Your task to perform on an android device: open app "Walmart Shopping & Grocery" (install if not already installed) and go to login screen Image 0: 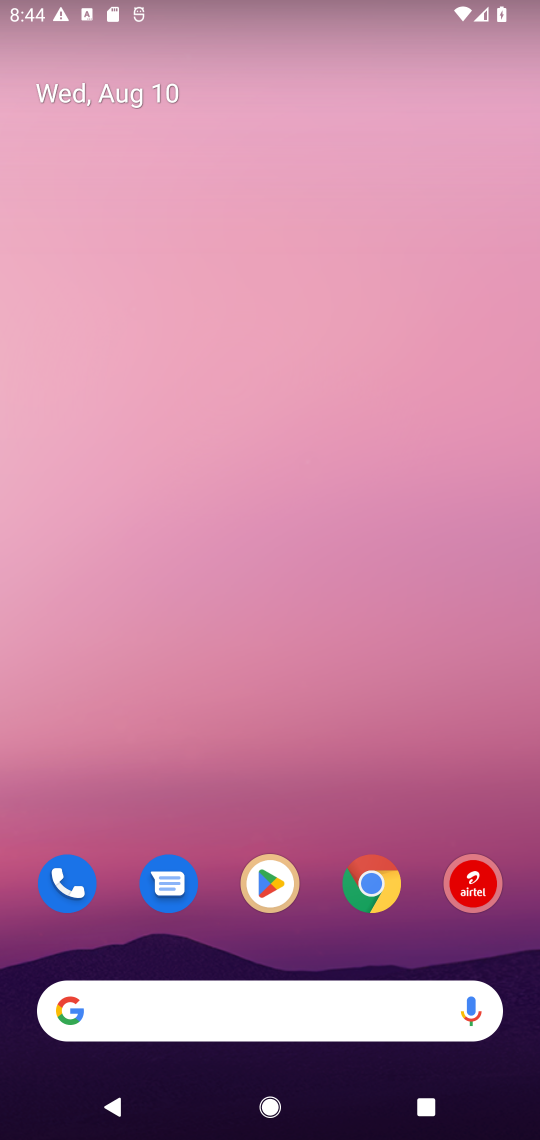
Step 0: drag from (314, 841) to (312, 92)
Your task to perform on an android device: open app "Walmart Shopping & Grocery" (install if not already installed) and go to login screen Image 1: 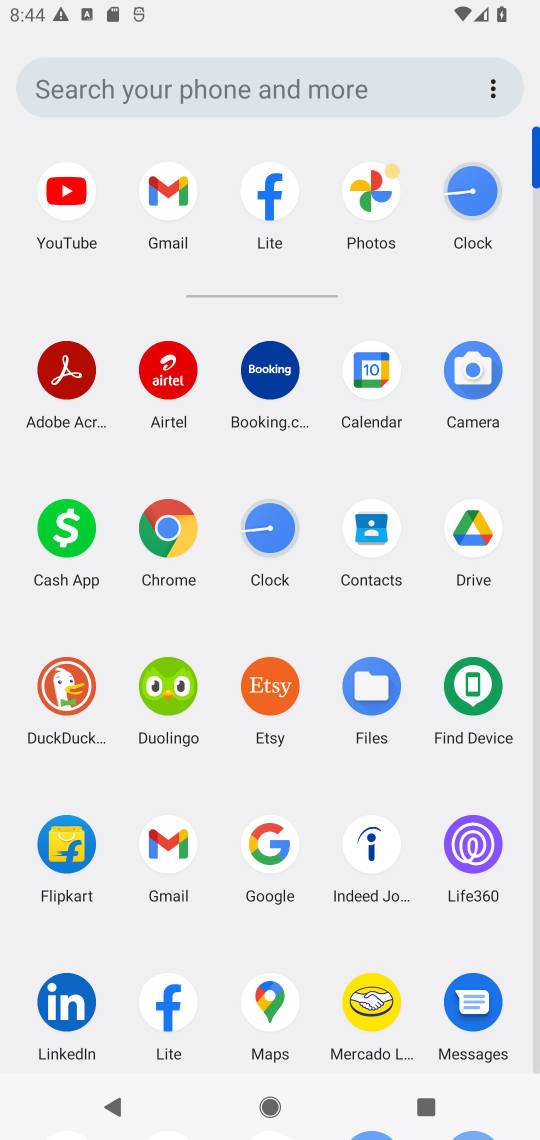
Step 1: drag from (208, 891) to (186, 417)
Your task to perform on an android device: open app "Walmart Shopping & Grocery" (install if not already installed) and go to login screen Image 2: 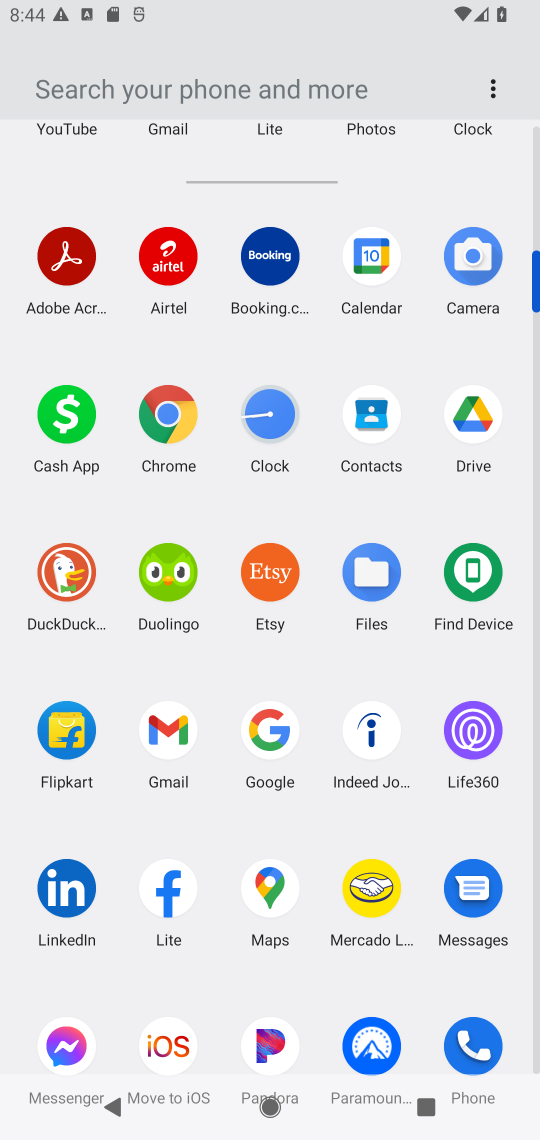
Step 2: drag from (224, 861) to (244, 467)
Your task to perform on an android device: open app "Walmart Shopping & Grocery" (install if not already installed) and go to login screen Image 3: 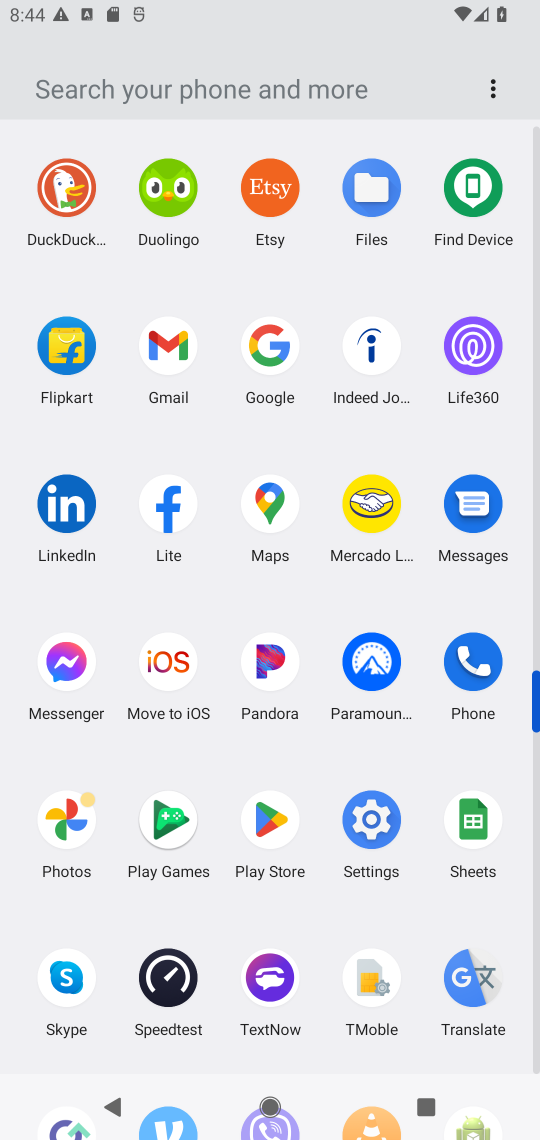
Step 3: click (262, 824)
Your task to perform on an android device: open app "Walmart Shopping & Grocery" (install if not already installed) and go to login screen Image 4: 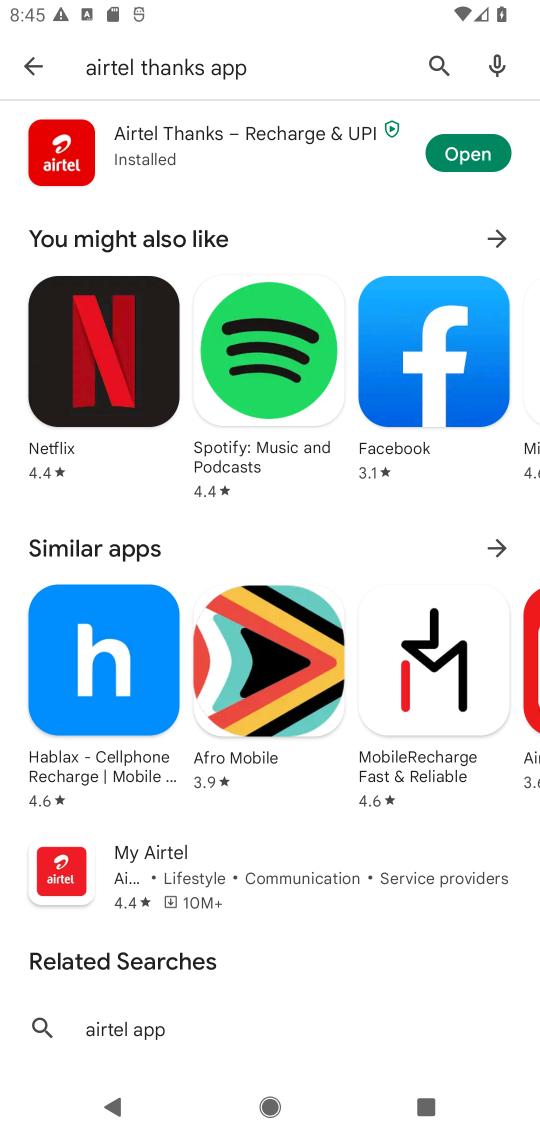
Step 4: click (434, 56)
Your task to perform on an android device: open app "Walmart Shopping & Grocery" (install if not already installed) and go to login screen Image 5: 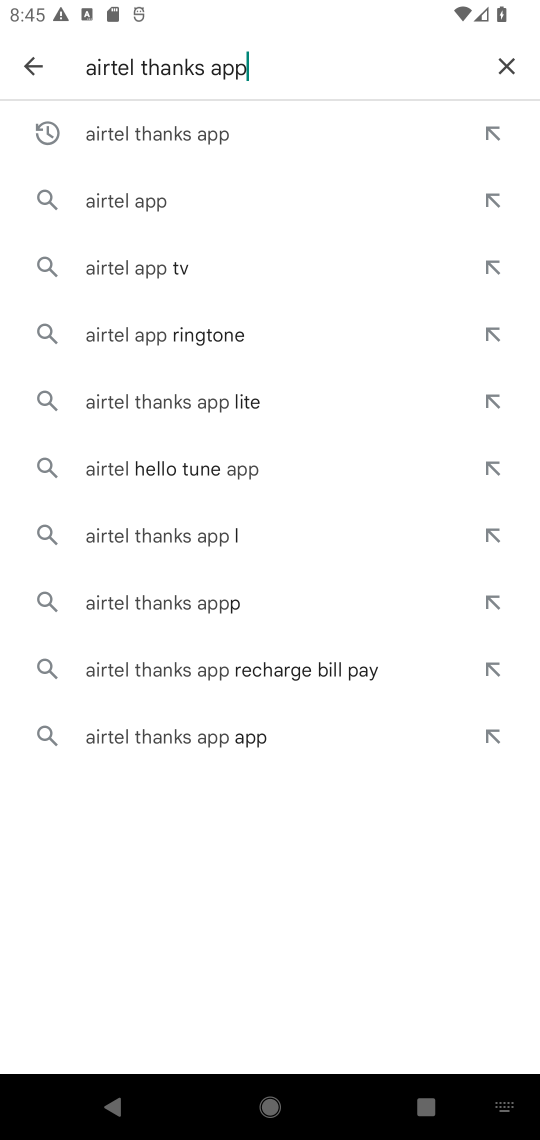
Step 5: click (506, 58)
Your task to perform on an android device: open app "Walmart Shopping & Grocery" (install if not already installed) and go to login screen Image 6: 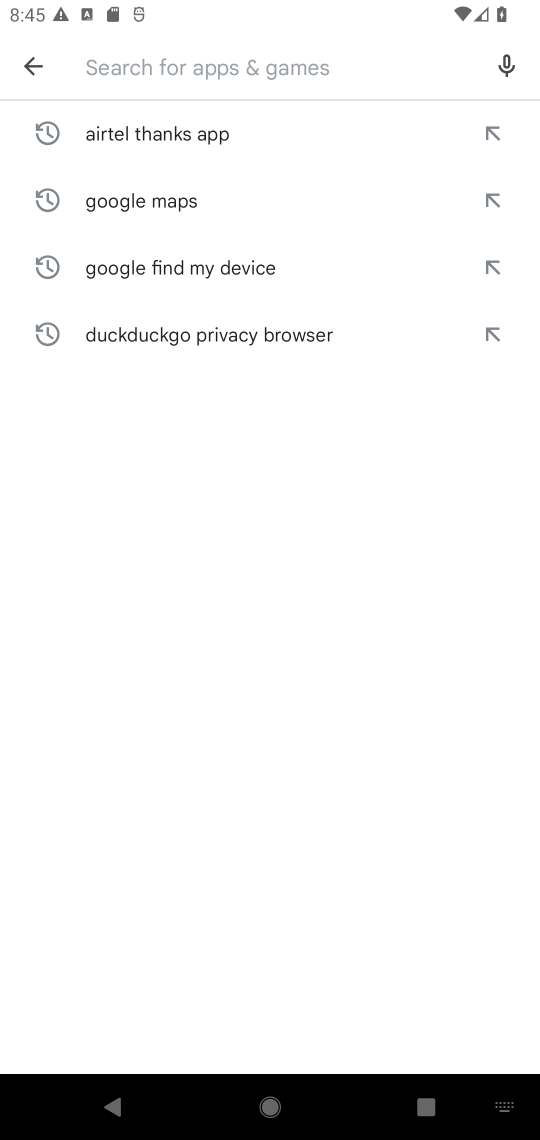
Step 6: type "Walmart Shopping & Grocery""
Your task to perform on an android device: open app "Walmart Shopping & Grocery" (install if not already installed) and go to login screen Image 7: 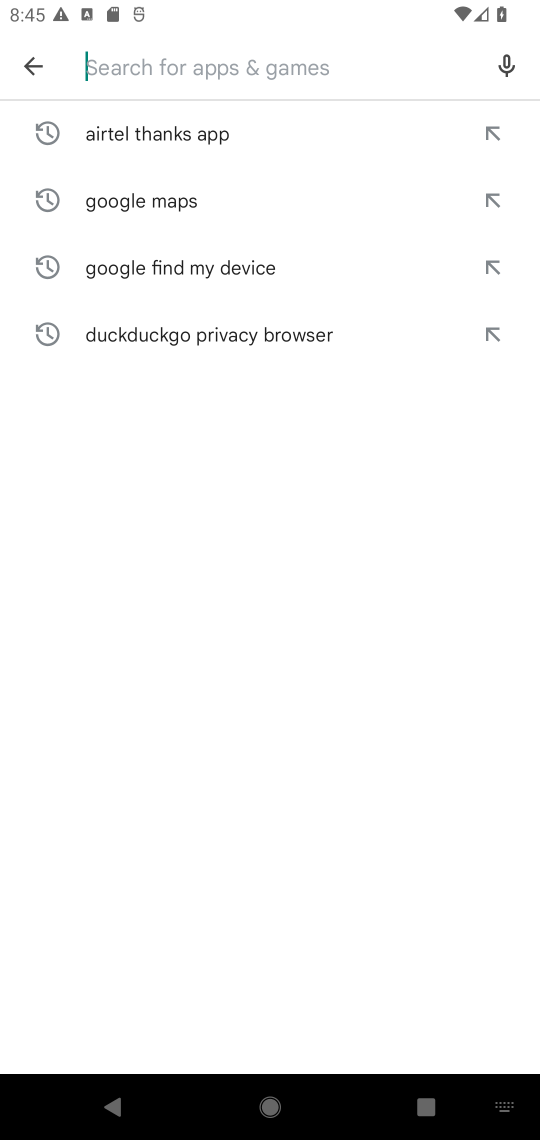
Step 7: type ""
Your task to perform on an android device: open app "Walmart Shopping & Grocery" (install if not already installed) and go to login screen Image 8: 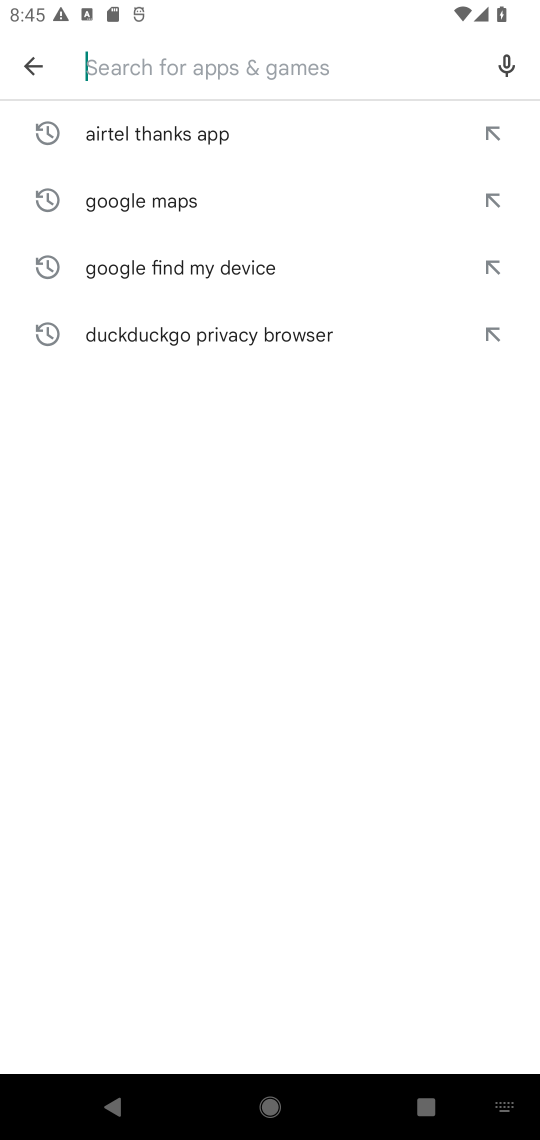
Step 8: type "Walmart Shopping & Grocery"
Your task to perform on an android device: open app "Walmart Shopping & Grocery" (install if not already installed) and go to login screen Image 9: 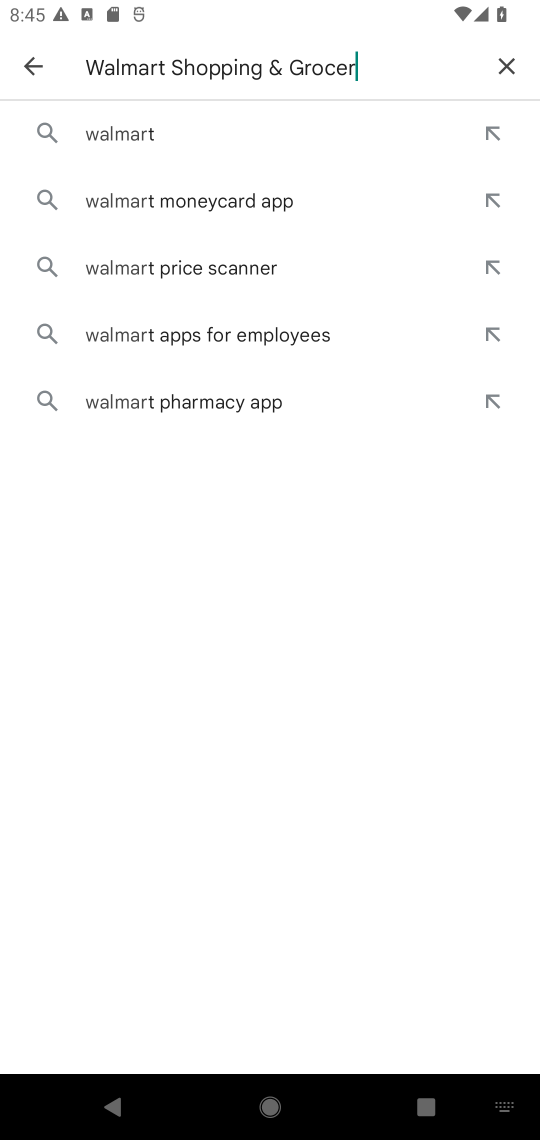
Step 9: type ""
Your task to perform on an android device: open app "Walmart Shopping & Grocery" (install if not already installed) and go to login screen Image 10: 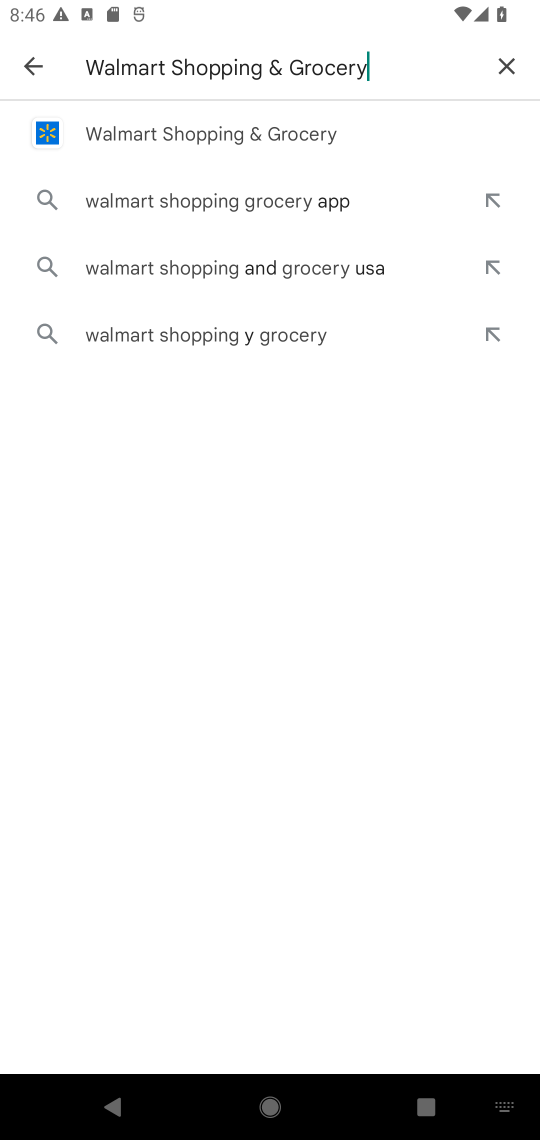
Step 10: click (139, 128)
Your task to perform on an android device: open app "Walmart Shopping & Grocery" (install if not already installed) and go to login screen Image 11: 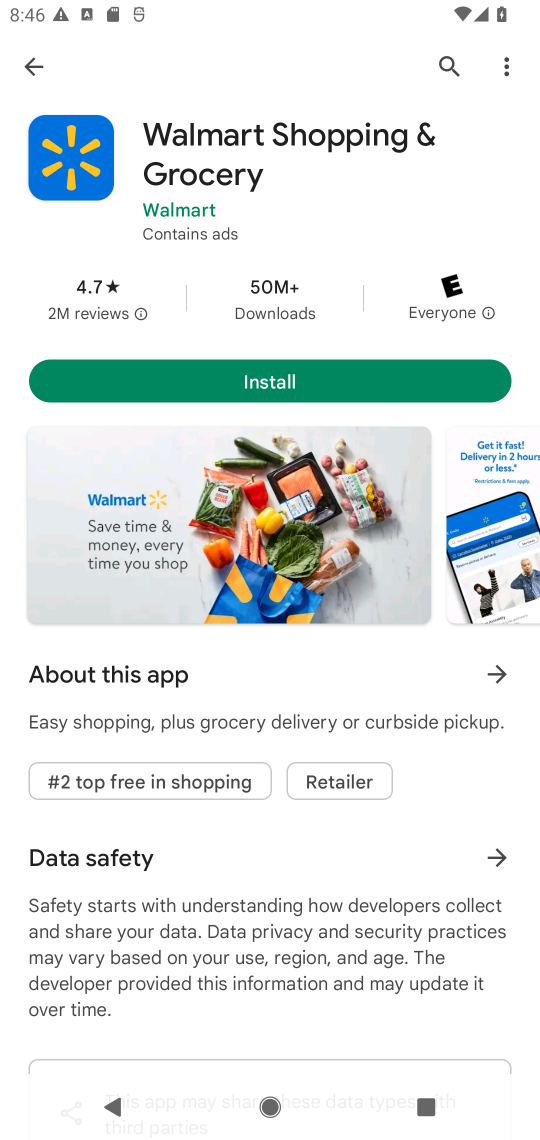
Step 11: click (251, 380)
Your task to perform on an android device: open app "Walmart Shopping & Grocery" (install if not already installed) and go to login screen Image 12: 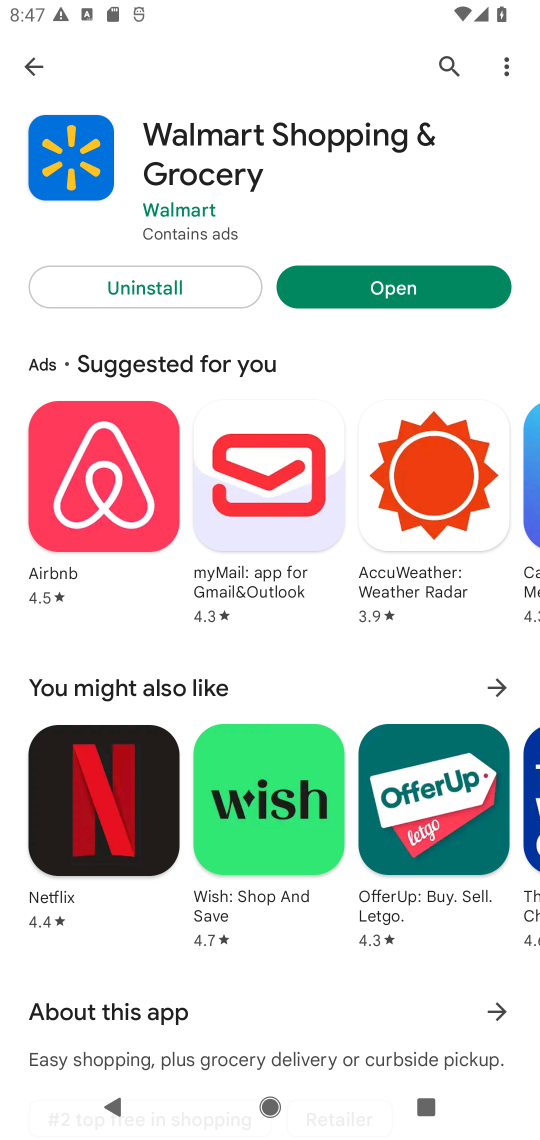
Step 12: click (411, 289)
Your task to perform on an android device: open app "Walmart Shopping & Grocery" (install if not already installed) and go to login screen Image 13: 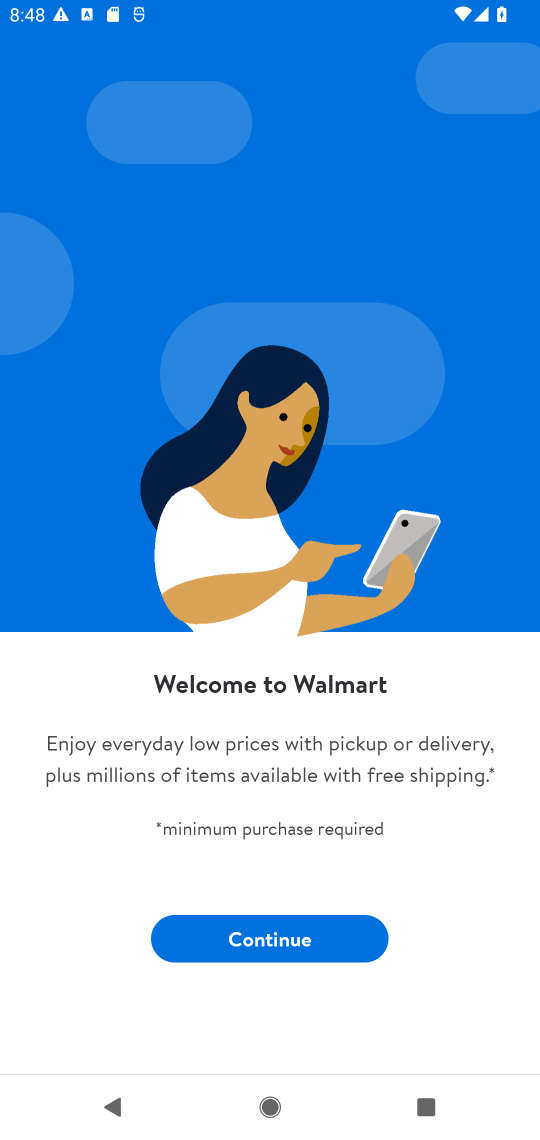
Step 13: click (266, 940)
Your task to perform on an android device: open app "Walmart Shopping & Grocery" (install if not already installed) and go to login screen Image 14: 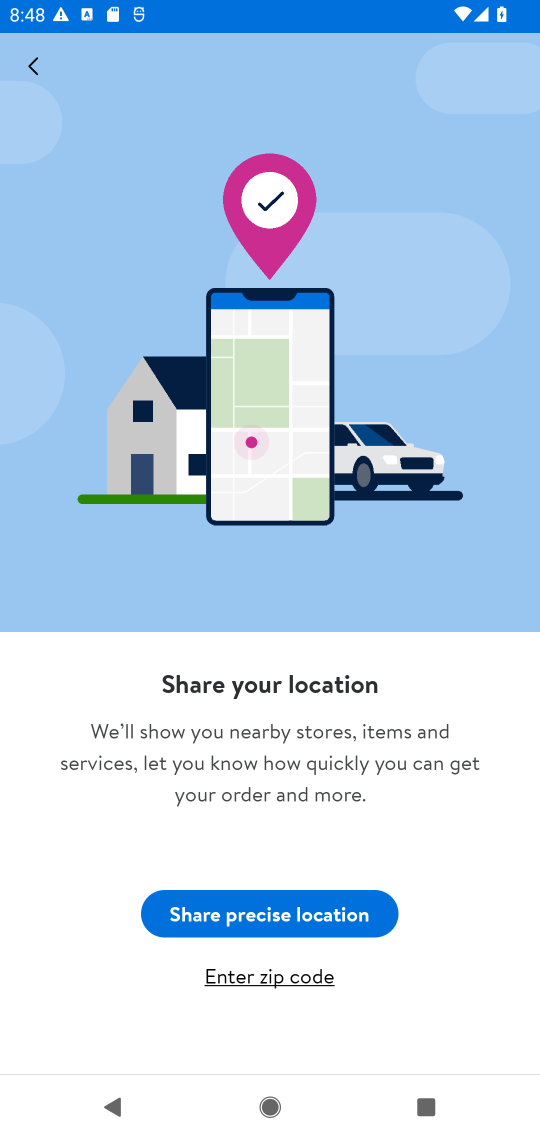
Step 14: task complete